Your task to perform on an android device: Open my contact list Image 0: 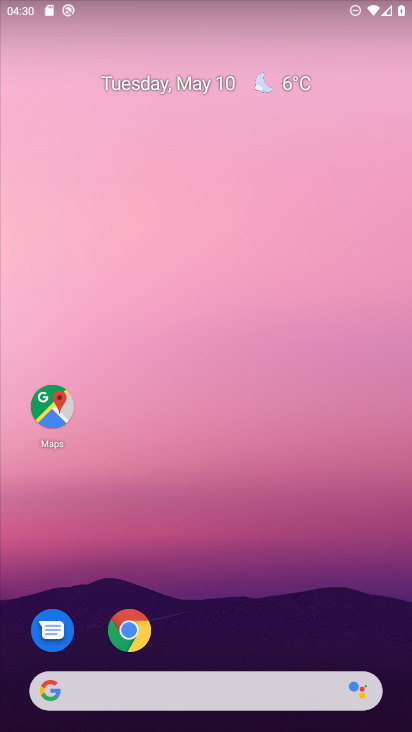
Step 0: drag from (236, 621) to (273, 109)
Your task to perform on an android device: Open my contact list Image 1: 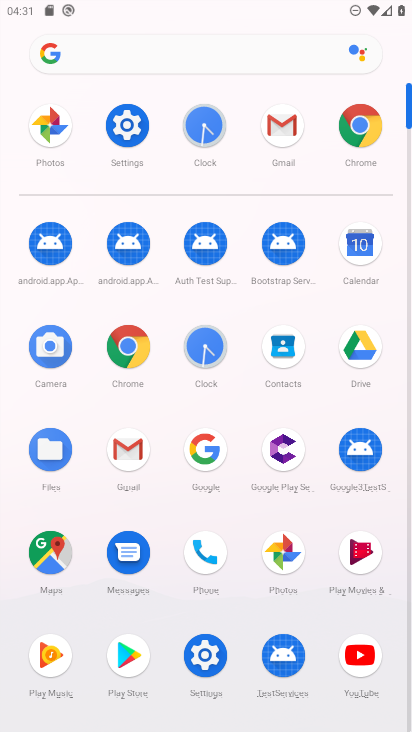
Step 1: click (284, 339)
Your task to perform on an android device: Open my contact list Image 2: 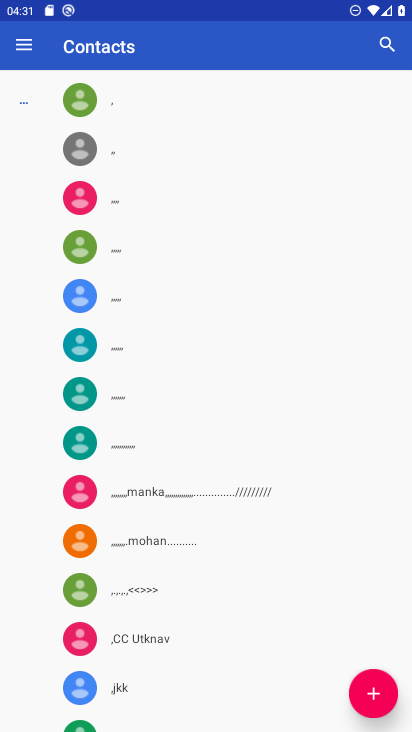
Step 2: task complete